Your task to perform on an android device: Open calendar and show me the second week of next month Image 0: 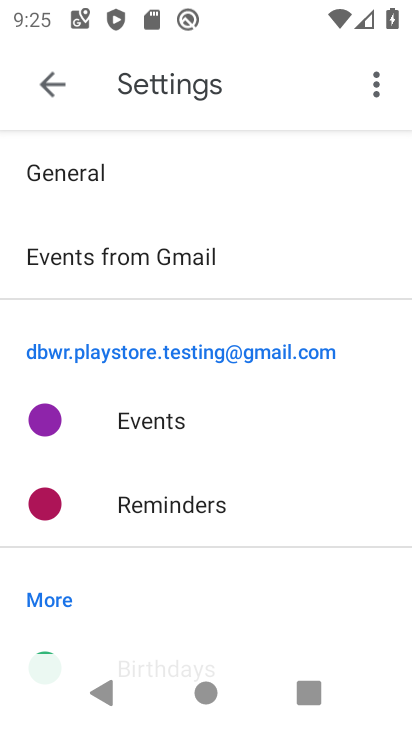
Step 0: press home button
Your task to perform on an android device: Open calendar and show me the second week of next month Image 1: 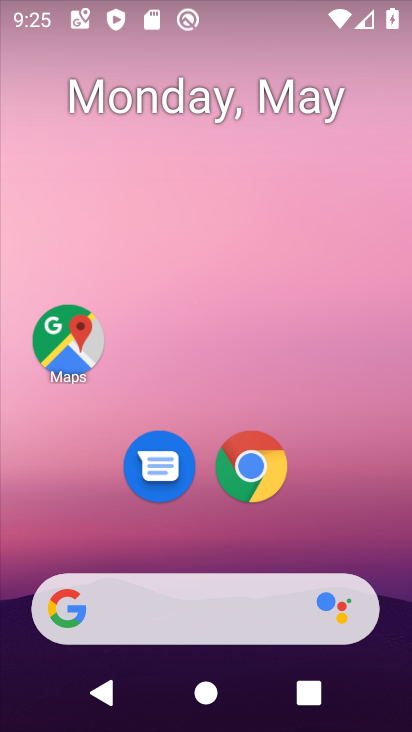
Step 1: drag from (277, 522) to (259, 93)
Your task to perform on an android device: Open calendar and show me the second week of next month Image 2: 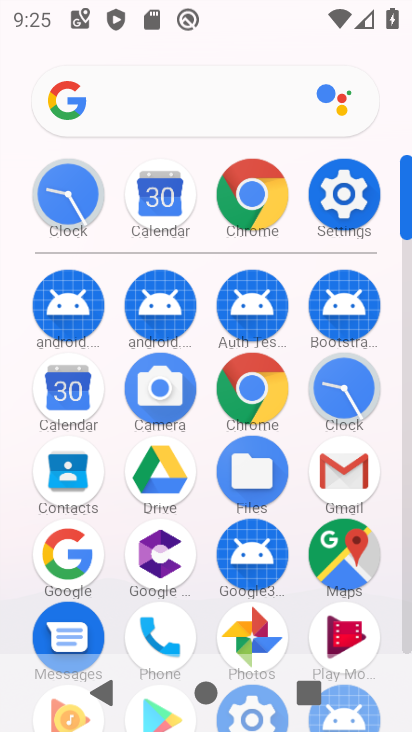
Step 2: click (61, 397)
Your task to perform on an android device: Open calendar and show me the second week of next month Image 3: 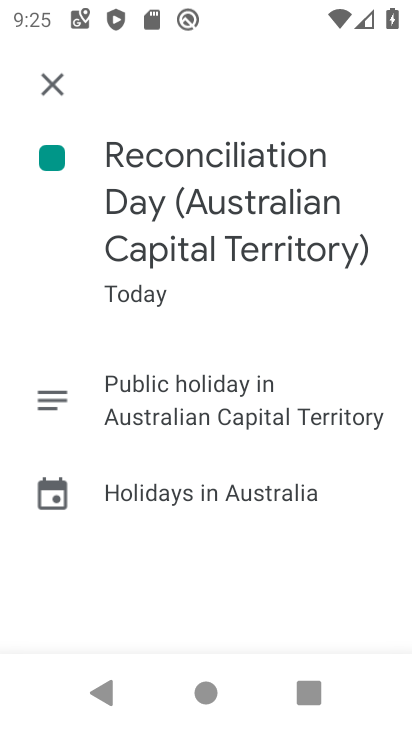
Step 3: click (58, 98)
Your task to perform on an android device: Open calendar and show me the second week of next month Image 4: 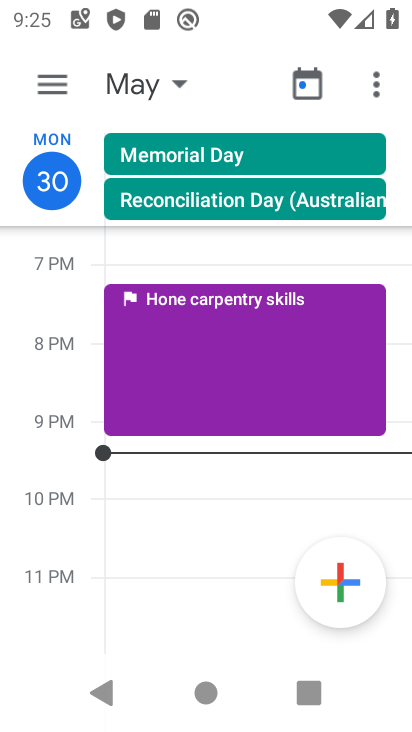
Step 4: click (53, 84)
Your task to perform on an android device: Open calendar and show me the second week of next month Image 5: 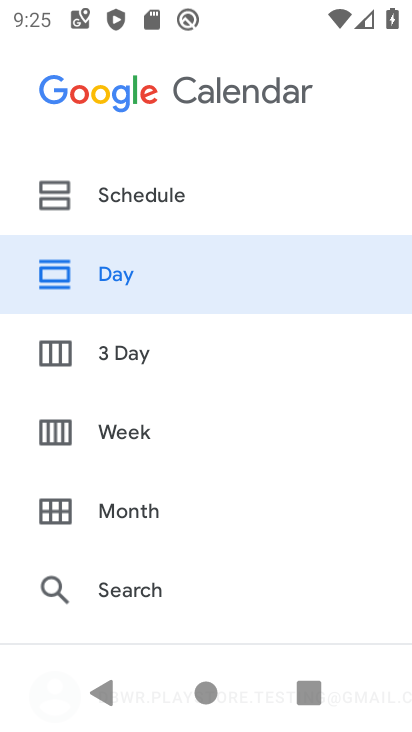
Step 5: click (105, 510)
Your task to perform on an android device: Open calendar and show me the second week of next month Image 6: 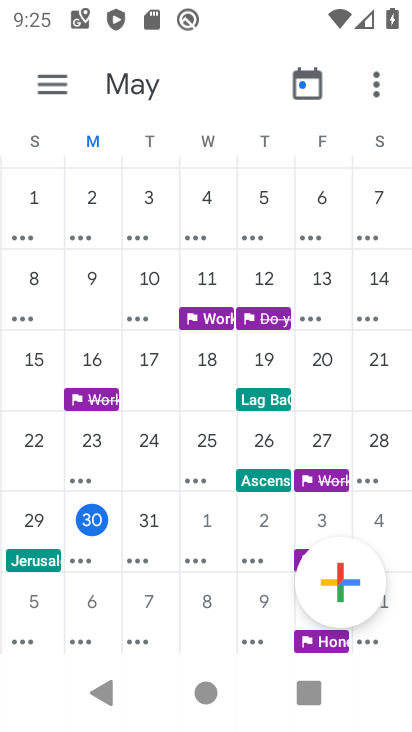
Step 6: drag from (381, 388) to (5, 358)
Your task to perform on an android device: Open calendar and show me the second week of next month Image 7: 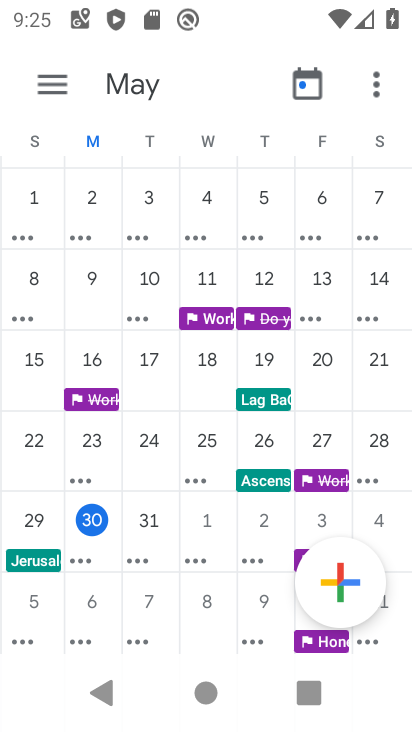
Step 7: drag from (391, 375) to (11, 303)
Your task to perform on an android device: Open calendar and show me the second week of next month Image 8: 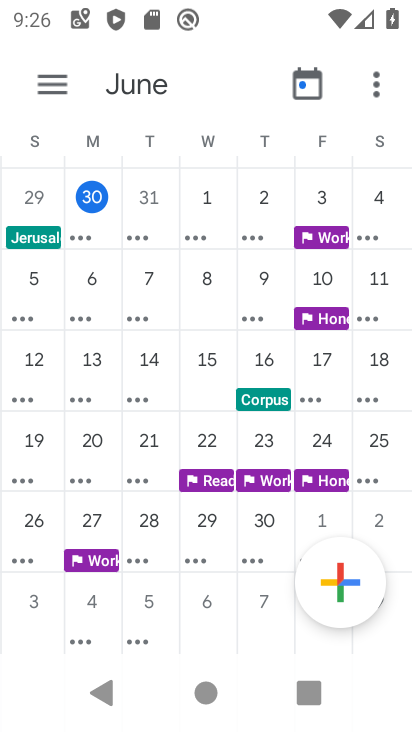
Step 8: click (84, 296)
Your task to perform on an android device: Open calendar and show me the second week of next month Image 9: 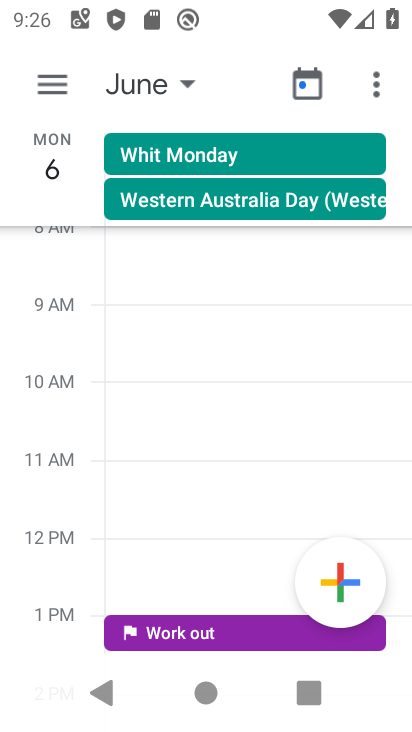
Step 9: task complete